Your task to perform on an android device: add a contact in the contacts app Image 0: 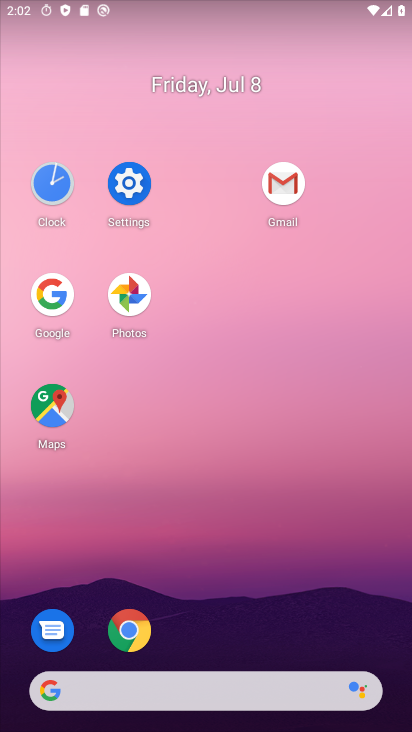
Step 0: drag from (225, 633) to (307, 190)
Your task to perform on an android device: add a contact in the contacts app Image 1: 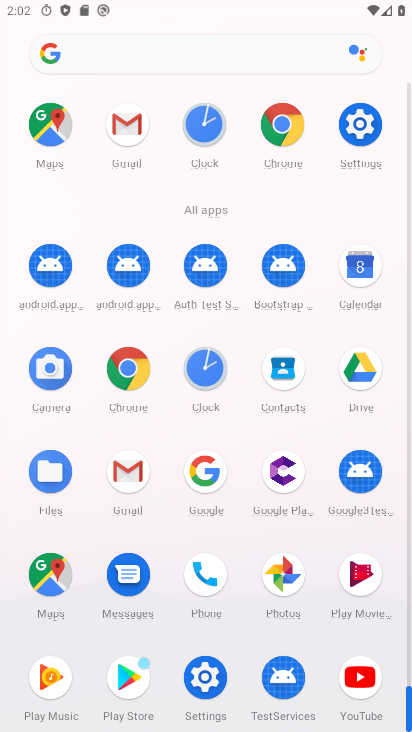
Step 1: click (284, 366)
Your task to perform on an android device: add a contact in the contacts app Image 2: 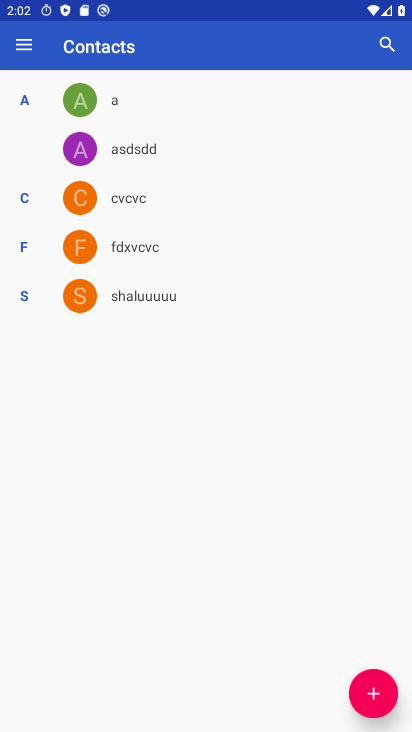
Step 2: click (372, 699)
Your task to perform on an android device: add a contact in the contacts app Image 3: 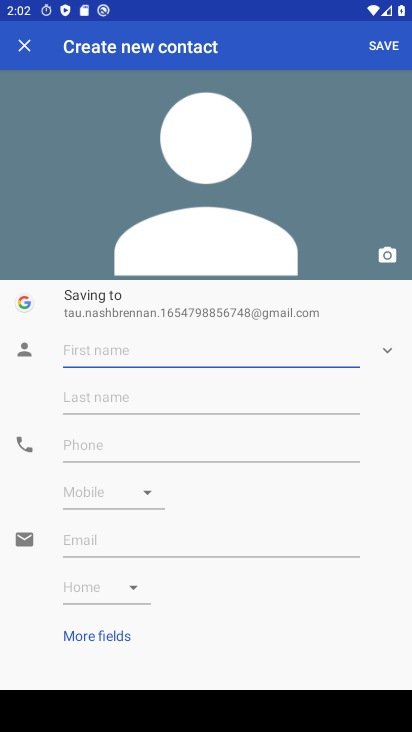
Step 3: type "uuyt"
Your task to perform on an android device: add a contact in the contacts app Image 4: 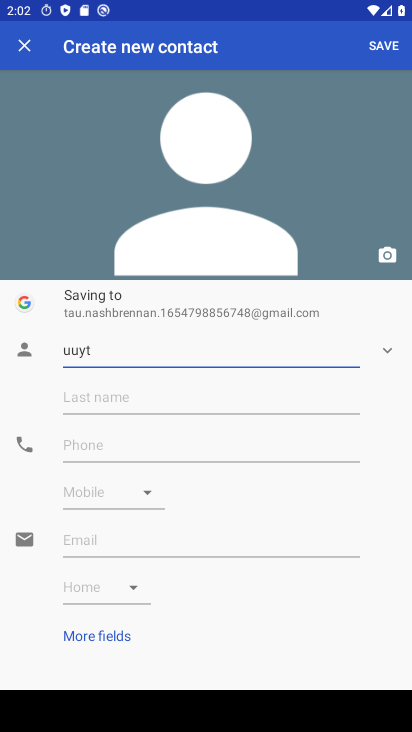
Step 4: click (174, 443)
Your task to perform on an android device: add a contact in the contacts app Image 5: 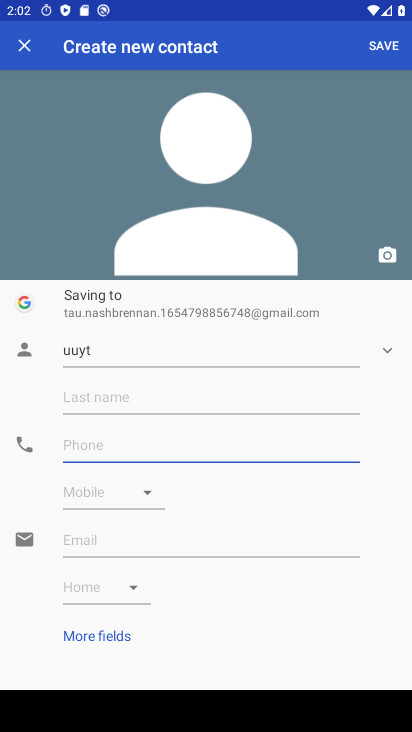
Step 5: type "7767674432"
Your task to perform on an android device: add a contact in the contacts app Image 6: 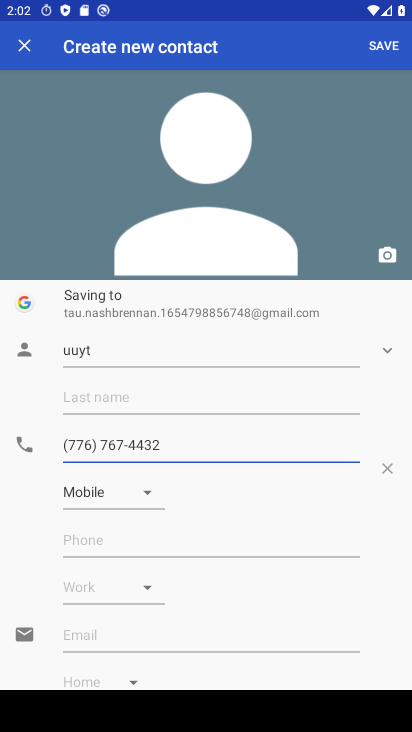
Step 6: click (402, 42)
Your task to perform on an android device: add a contact in the contacts app Image 7: 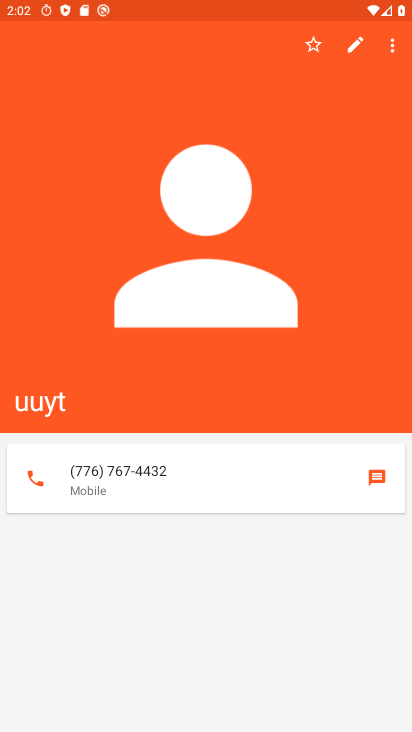
Step 7: task complete